Your task to perform on an android device: turn off location history Image 0: 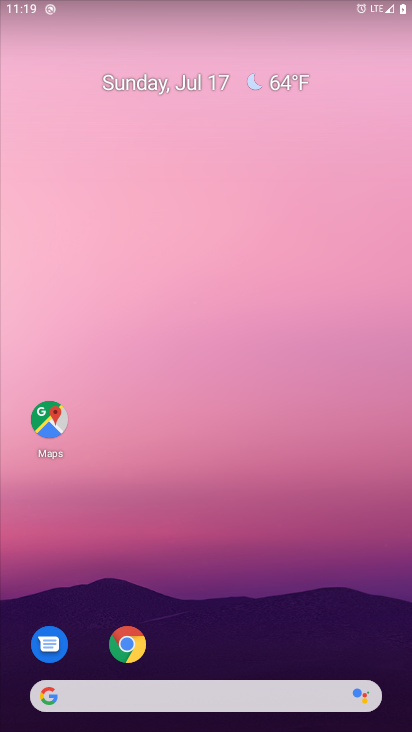
Step 0: press home button
Your task to perform on an android device: turn off location history Image 1: 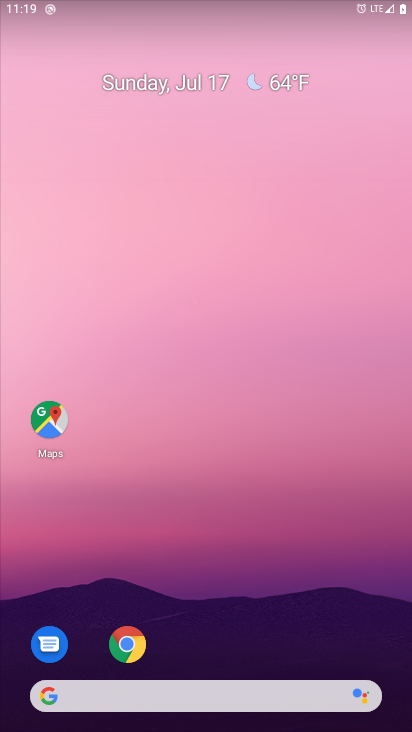
Step 1: drag from (262, 623) to (238, 68)
Your task to perform on an android device: turn off location history Image 2: 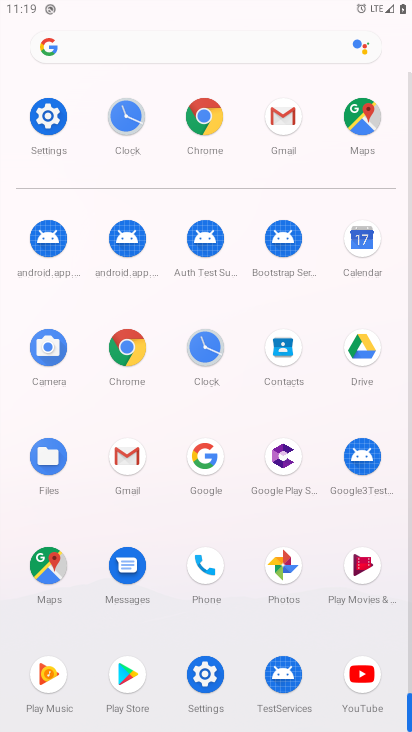
Step 2: click (38, 115)
Your task to perform on an android device: turn off location history Image 3: 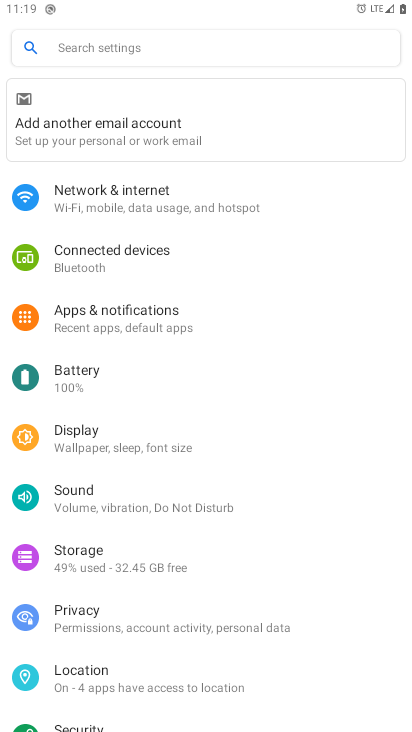
Step 3: click (147, 681)
Your task to perform on an android device: turn off location history Image 4: 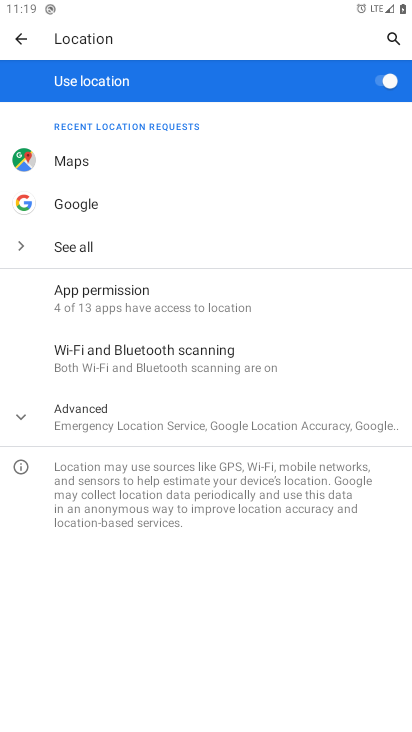
Step 4: click (18, 411)
Your task to perform on an android device: turn off location history Image 5: 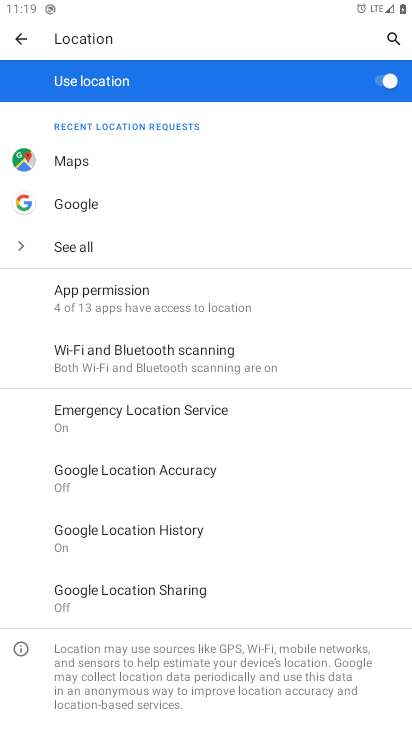
Step 5: click (82, 534)
Your task to perform on an android device: turn off location history Image 6: 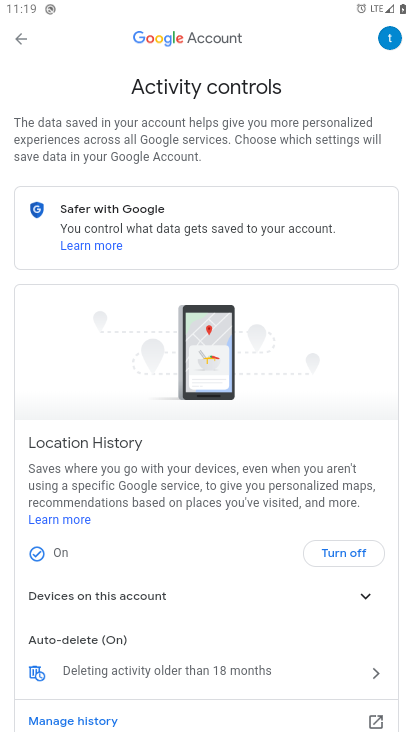
Step 6: click (337, 555)
Your task to perform on an android device: turn off location history Image 7: 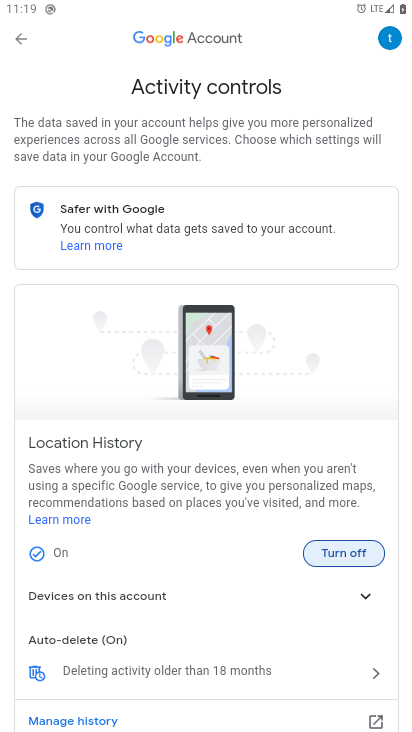
Step 7: click (349, 557)
Your task to perform on an android device: turn off location history Image 8: 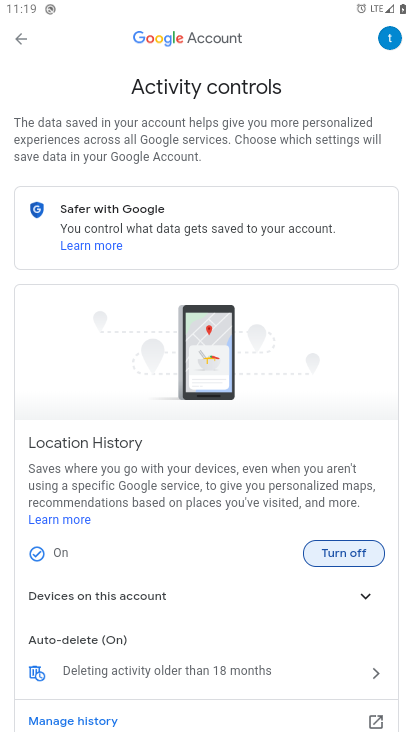
Step 8: click (349, 557)
Your task to perform on an android device: turn off location history Image 9: 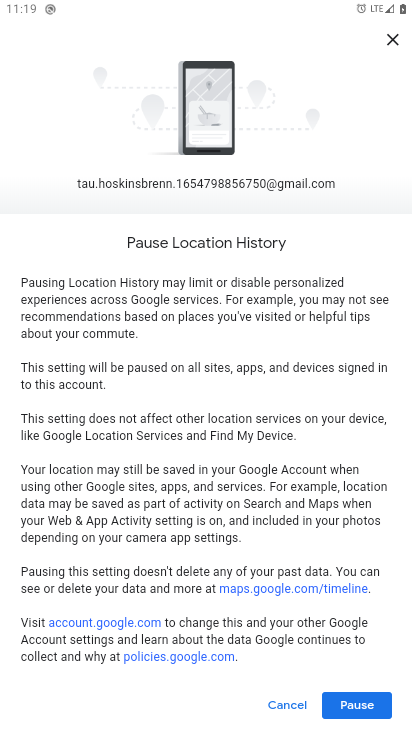
Step 9: click (345, 711)
Your task to perform on an android device: turn off location history Image 10: 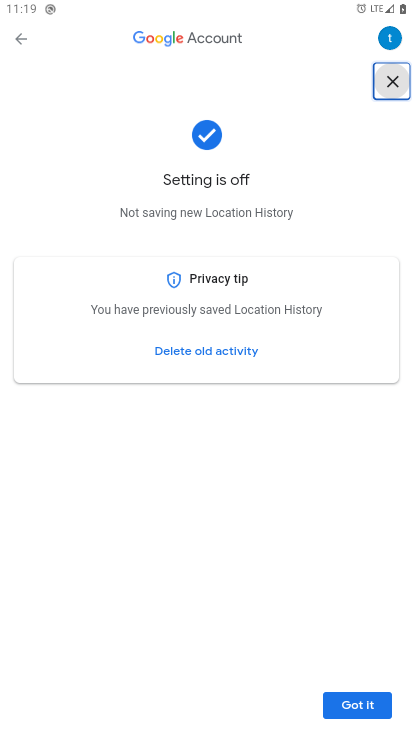
Step 10: click (357, 706)
Your task to perform on an android device: turn off location history Image 11: 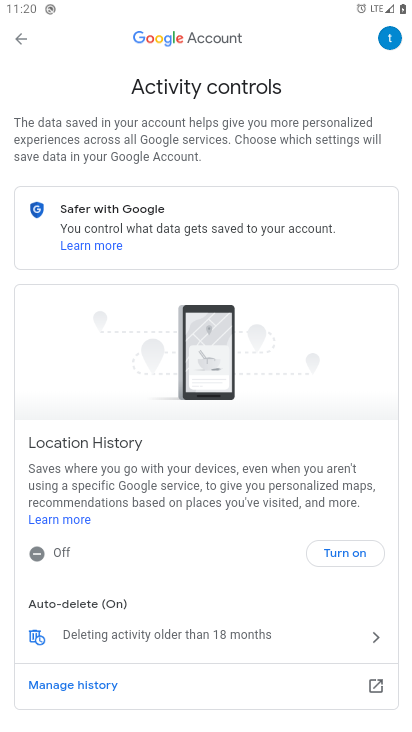
Step 11: task complete